Your task to perform on an android device: delete location history Image 0: 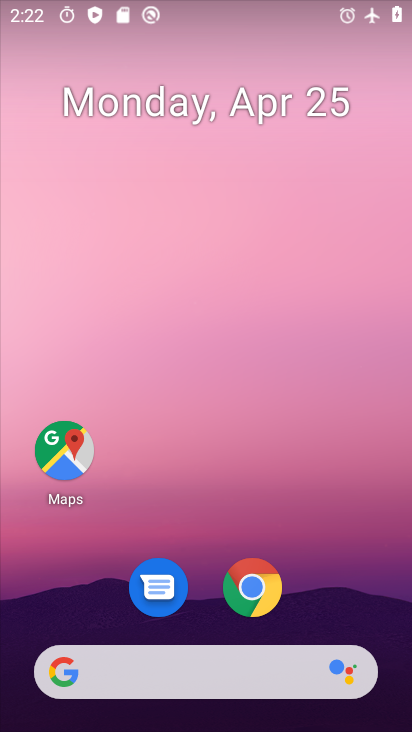
Step 0: click (285, 160)
Your task to perform on an android device: delete location history Image 1: 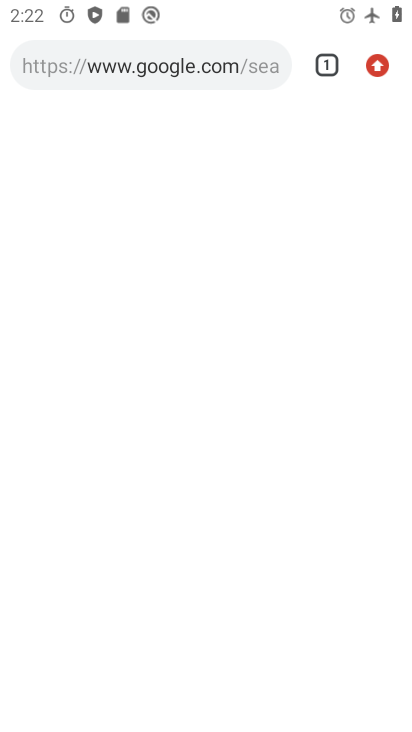
Step 1: press home button
Your task to perform on an android device: delete location history Image 2: 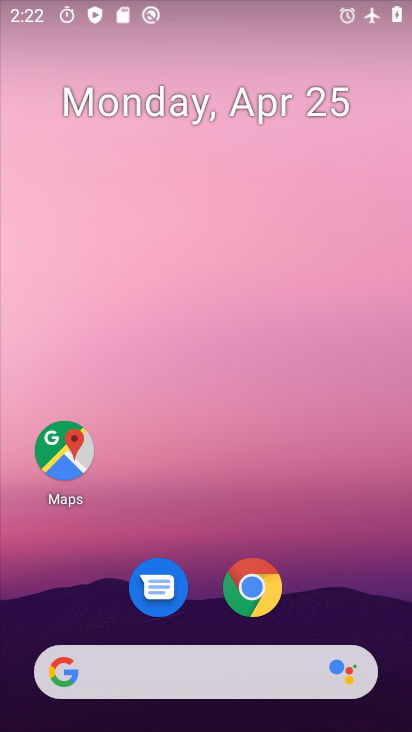
Step 2: drag from (346, 580) to (268, 122)
Your task to perform on an android device: delete location history Image 3: 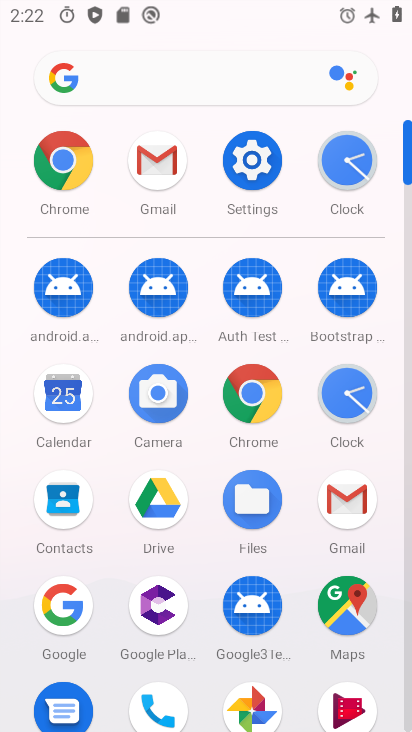
Step 3: click (242, 391)
Your task to perform on an android device: delete location history Image 4: 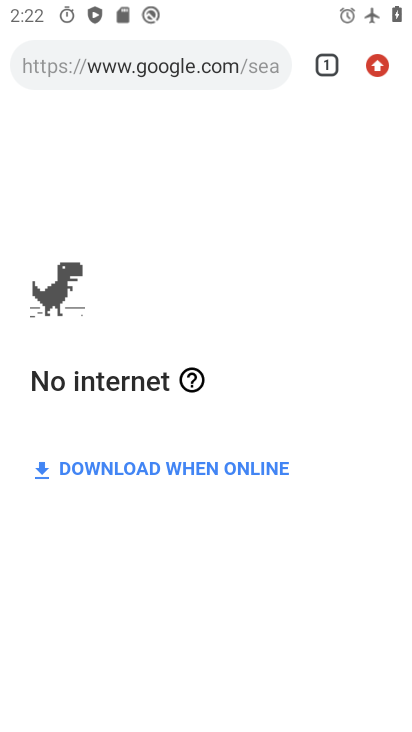
Step 4: drag from (400, 68) to (192, 285)
Your task to perform on an android device: delete location history Image 5: 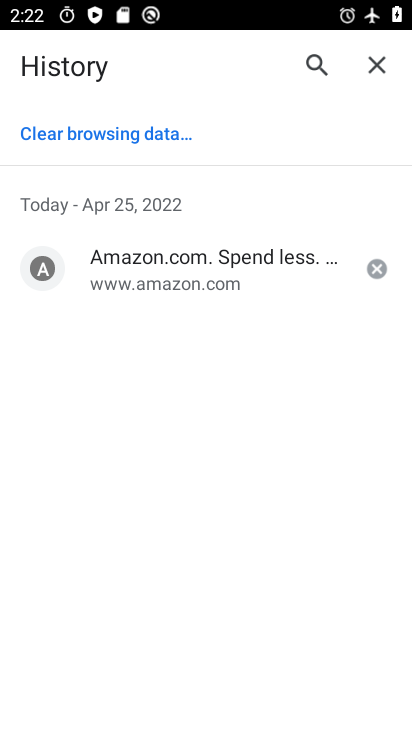
Step 5: click (104, 140)
Your task to perform on an android device: delete location history Image 6: 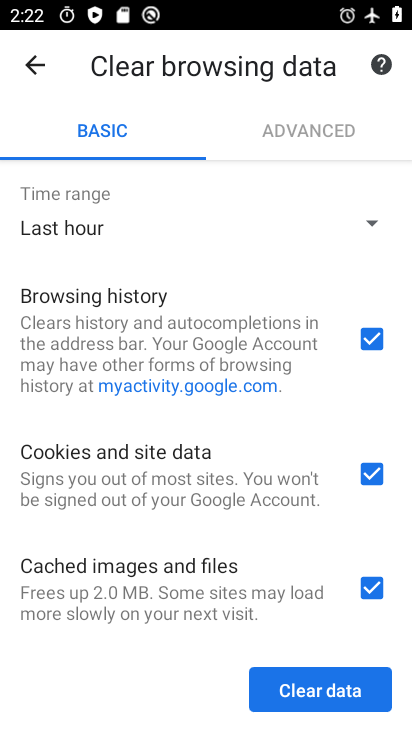
Step 6: click (341, 700)
Your task to perform on an android device: delete location history Image 7: 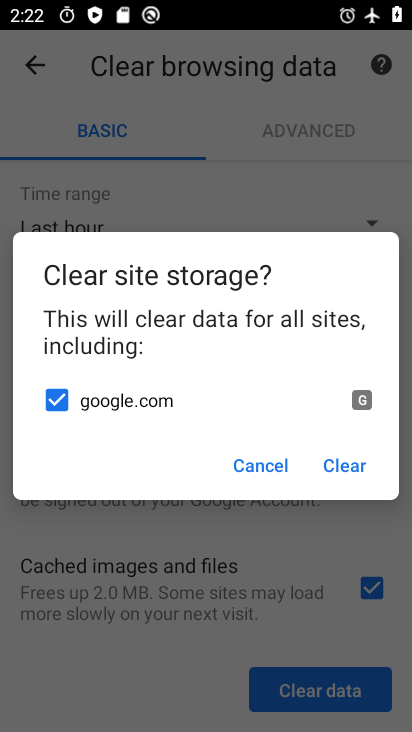
Step 7: click (338, 464)
Your task to perform on an android device: delete location history Image 8: 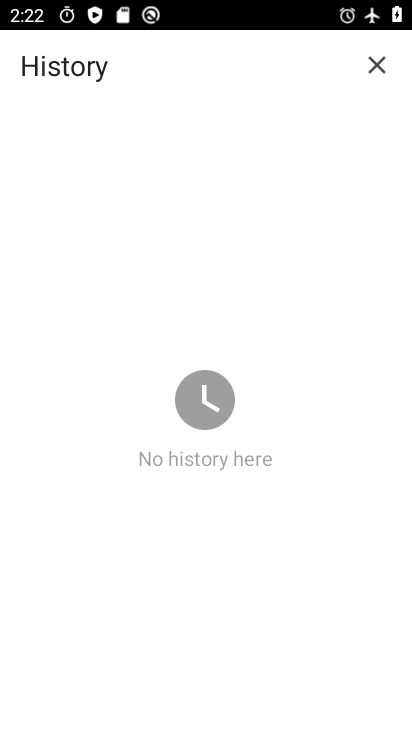
Step 8: task complete